Your task to perform on an android device: View the shopping cart on walmart. Add "bose soundlink mini" to the cart on walmart, then select checkout. Image 0: 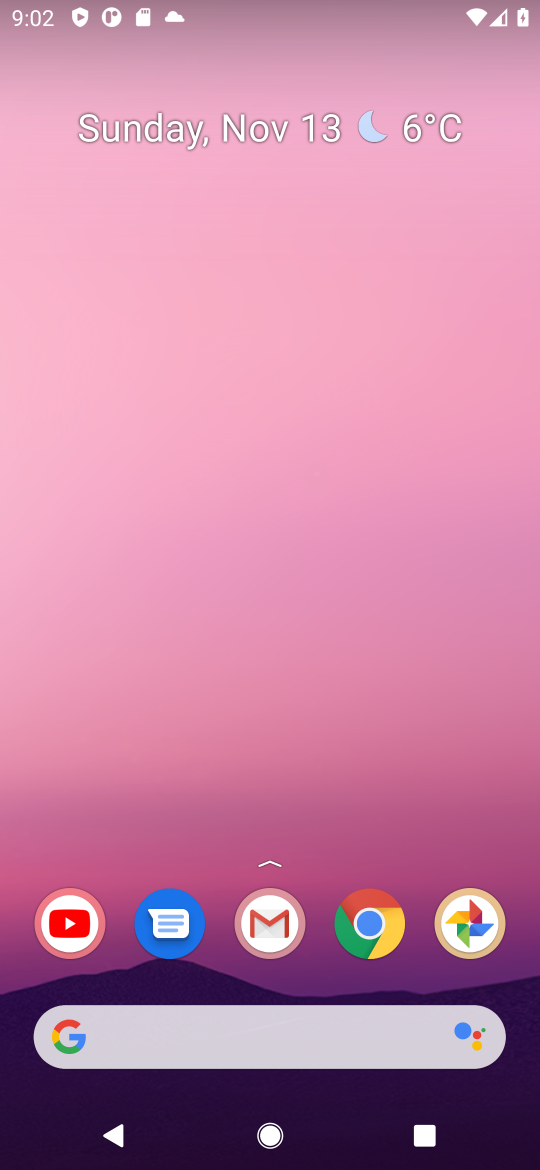
Step 0: click (377, 941)
Your task to perform on an android device: View the shopping cart on walmart. Add "bose soundlink mini" to the cart on walmart, then select checkout. Image 1: 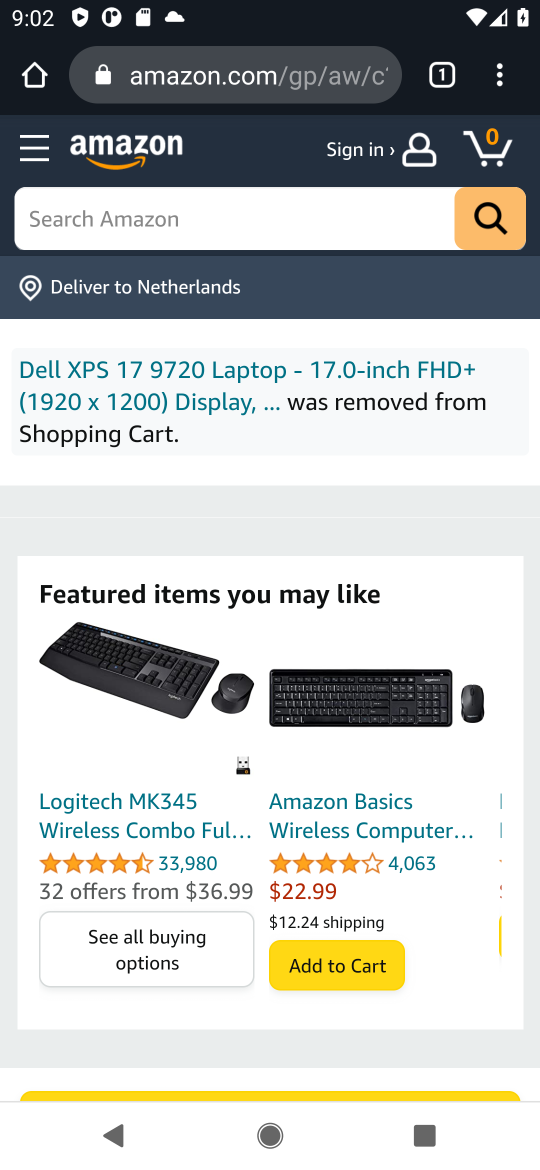
Step 1: click (264, 71)
Your task to perform on an android device: View the shopping cart on walmart. Add "bose soundlink mini" to the cart on walmart, then select checkout. Image 2: 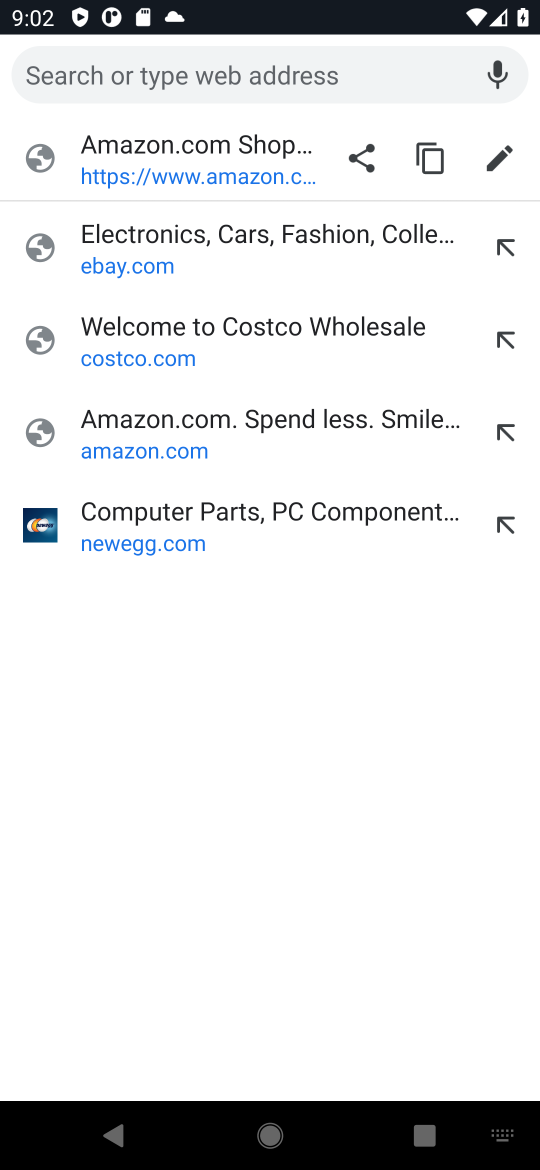
Step 2: type "walmart"
Your task to perform on an android device: View the shopping cart on walmart. Add "bose soundlink mini" to the cart on walmart, then select checkout. Image 3: 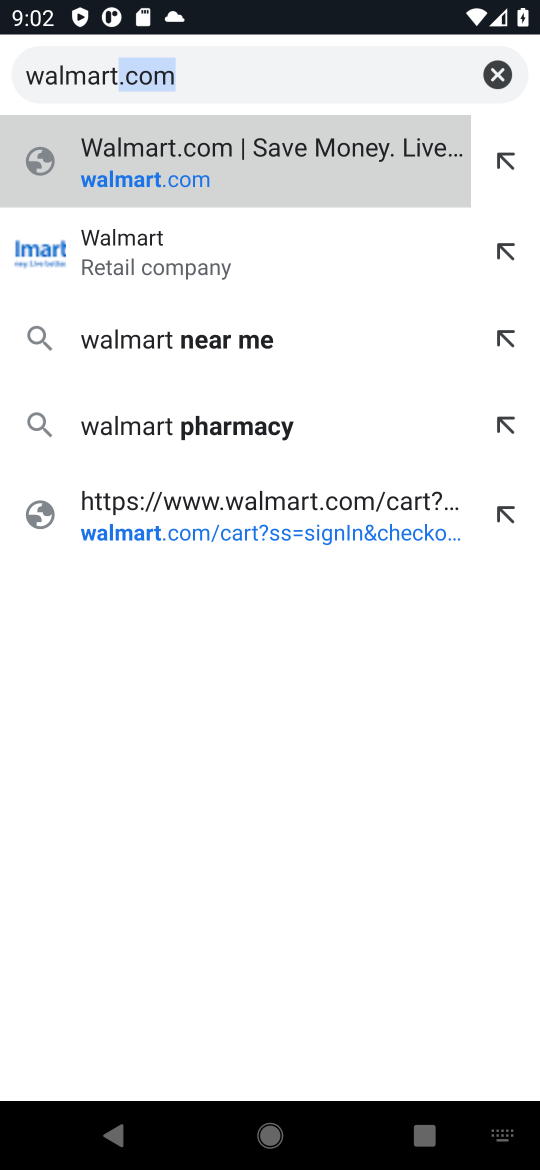
Step 3: press enter
Your task to perform on an android device: View the shopping cart on walmart. Add "bose soundlink mini" to the cart on walmart, then select checkout. Image 4: 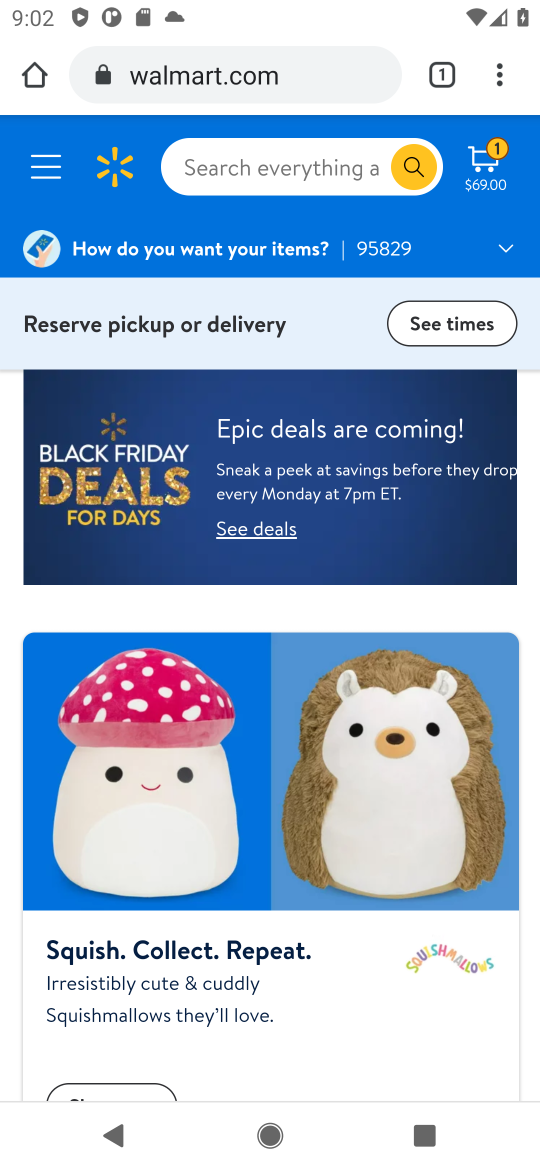
Step 4: click (497, 173)
Your task to perform on an android device: View the shopping cart on walmart. Add "bose soundlink mini" to the cart on walmart, then select checkout. Image 5: 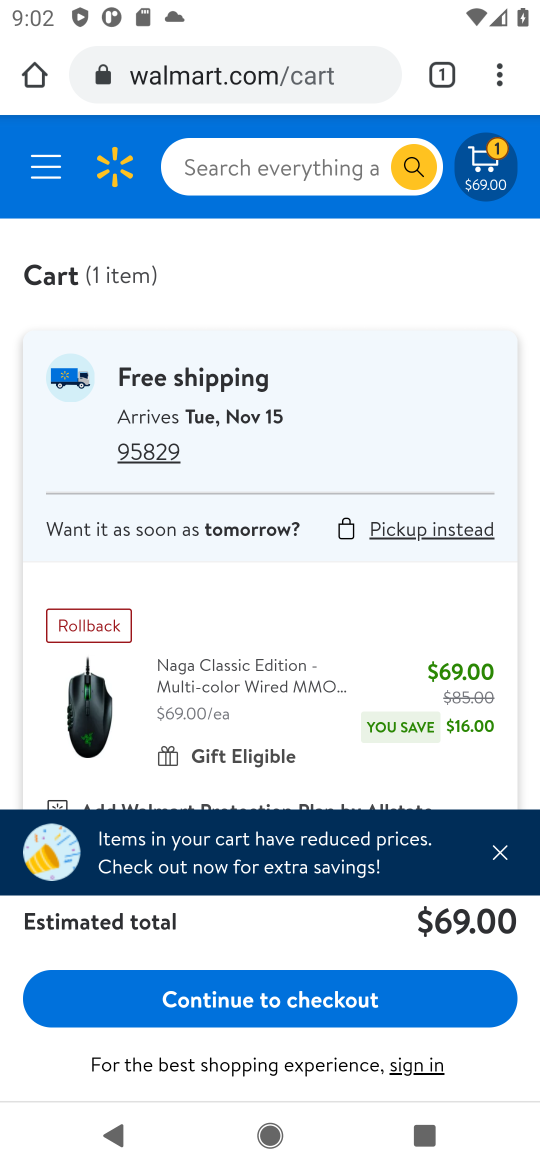
Step 5: drag from (286, 613) to (294, 382)
Your task to perform on an android device: View the shopping cart on walmart. Add "bose soundlink mini" to the cart on walmart, then select checkout. Image 6: 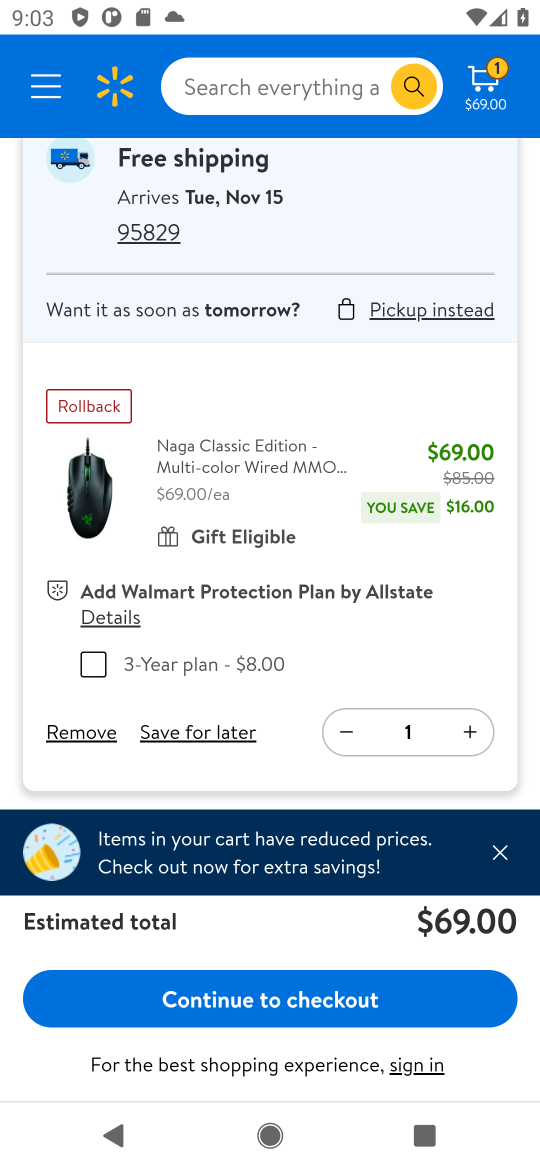
Step 6: click (96, 730)
Your task to perform on an android device: View the shopping cart on walmart. Add "bose soundlink mini" to the cart on walmart, then select checkout. Image 7: 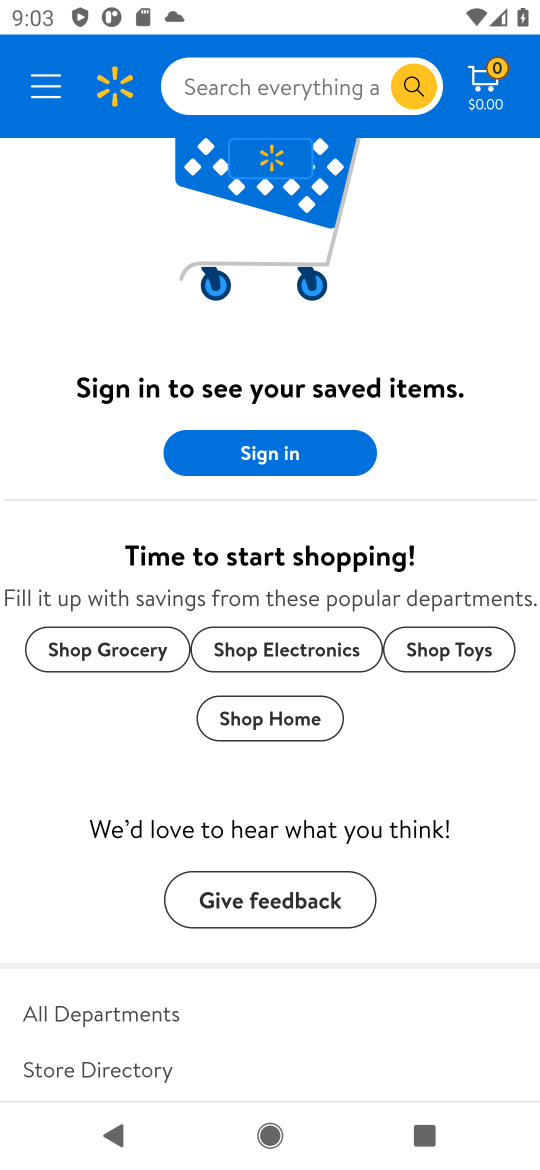
Step 7: click (313, 92)
Your task to perform on an android device: View the shopping cart on walmart. Add "bose soundlink mini" to the cart on walmart, then select checkout. Image 8: 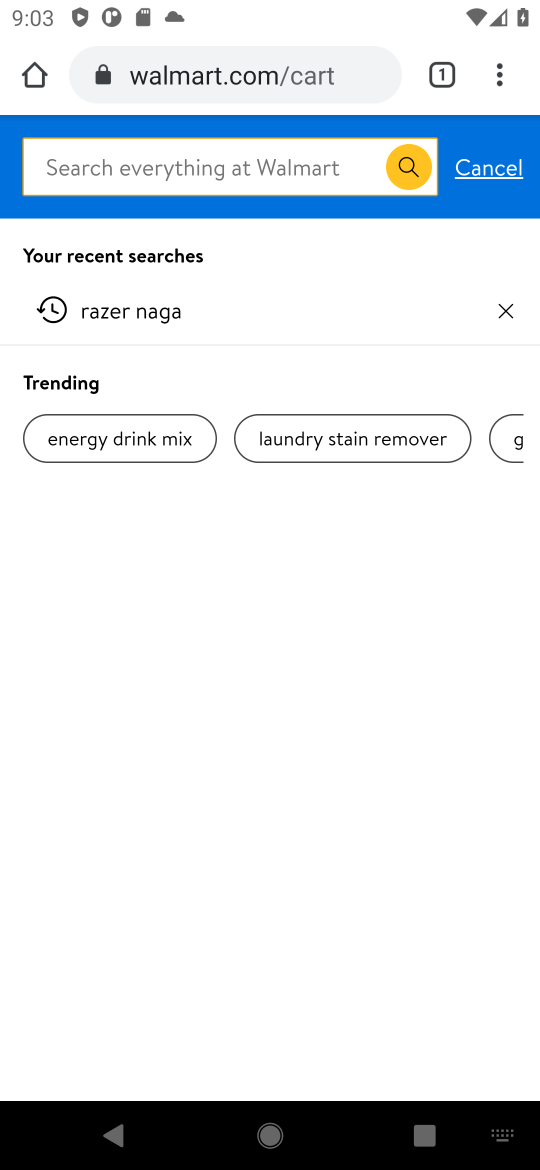
Step 8: type "bose soundlink mini"
Your task to perform on an android device: View the shopping cart on walmart. Add "bose soundlink mini" to the cart on walmart, then select checkout. Image 9: 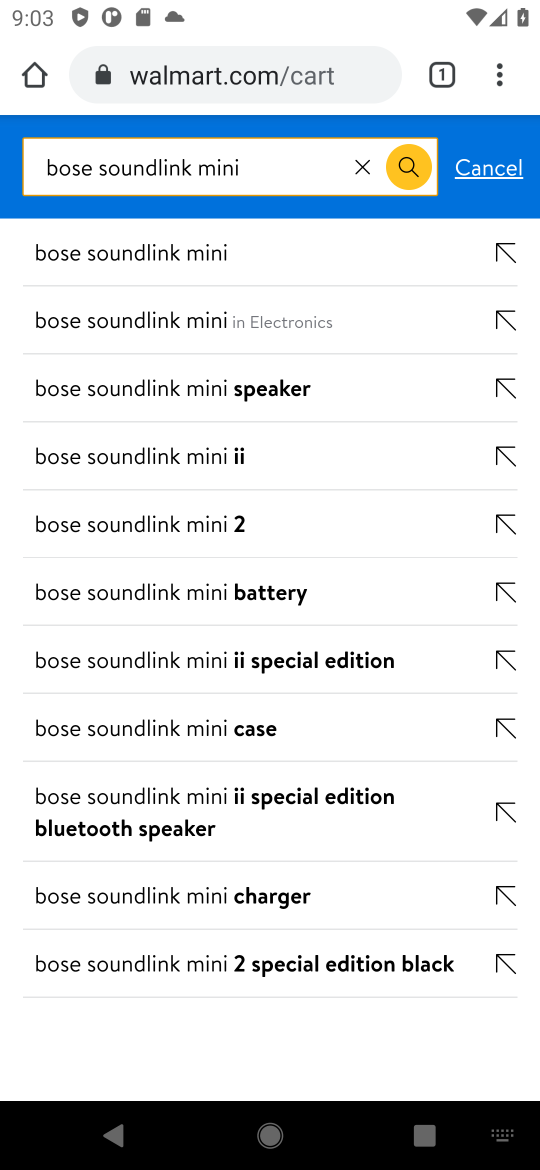
Step 9: click (158, 247)
Your task to perform on an android device: View the shopping cart on walmart. Add "bose soundlink mini" to the cart on walmart, then select checkout. Image 10: 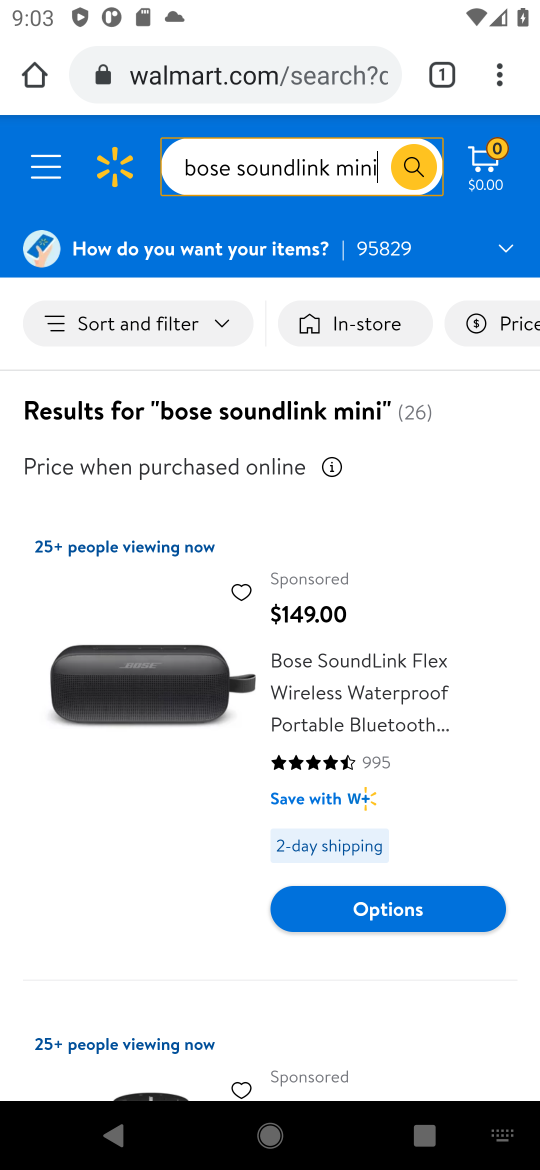
Step 10: task complete